Your task to perform on an android device: Open Yahoo.com Image 0: 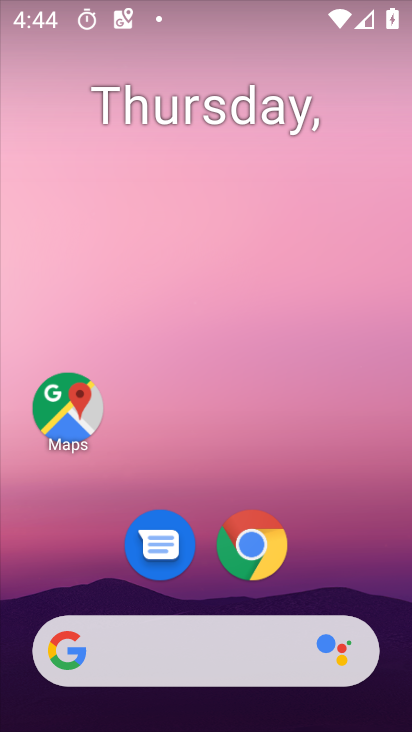
Step 0: click (256, 551)
Your task to perform on an android device: Open Yahoo.com Image 1: 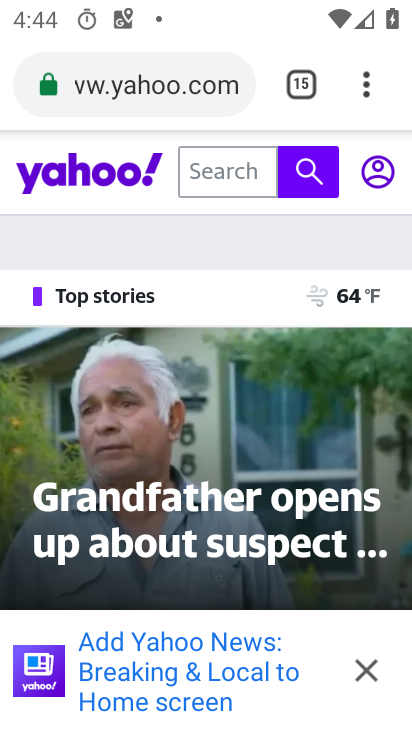
Step 1: task complete